Your task to perform on an android device: Add razer blade to the cart on walmart.com Image 0: 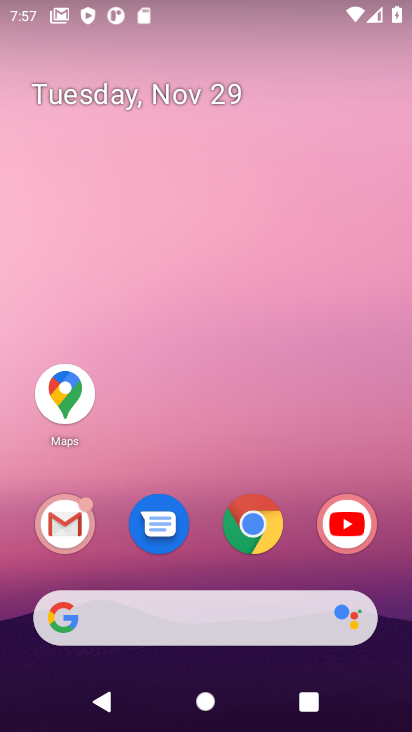
Step 0: click (251, 526)
Your task to perform on an android device: Add razer blade to the cart on walmart.com Image 1: 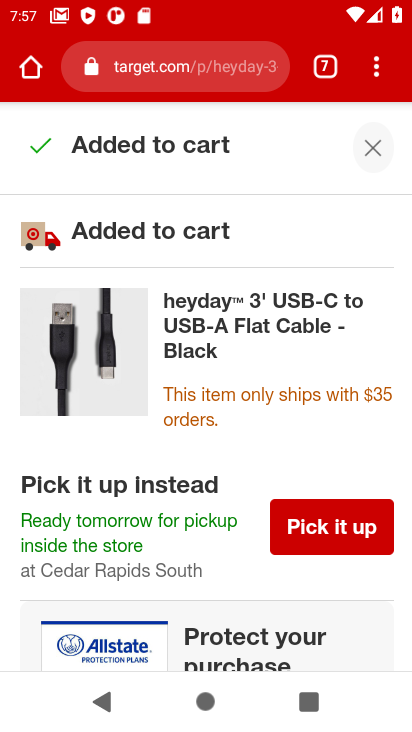
Step 1: click (167, 69)
Your task to perform on an android device: Add razer blade to the cart on walmart.com Image 2: 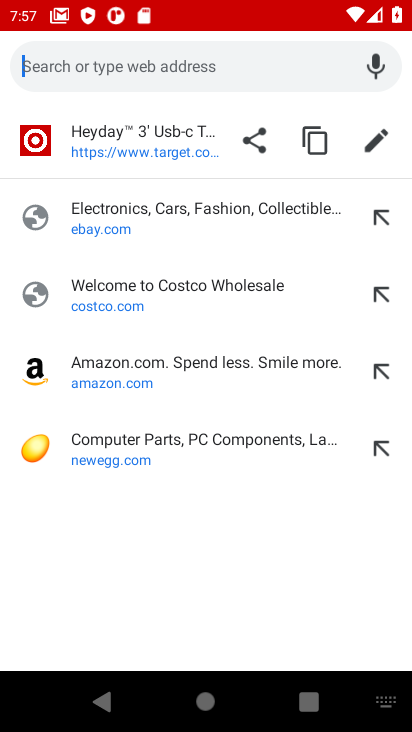
Step 2: type "walmart.com"
Your task to perform on an android device: Add razer blade to the cart on walmart.com Image 3: 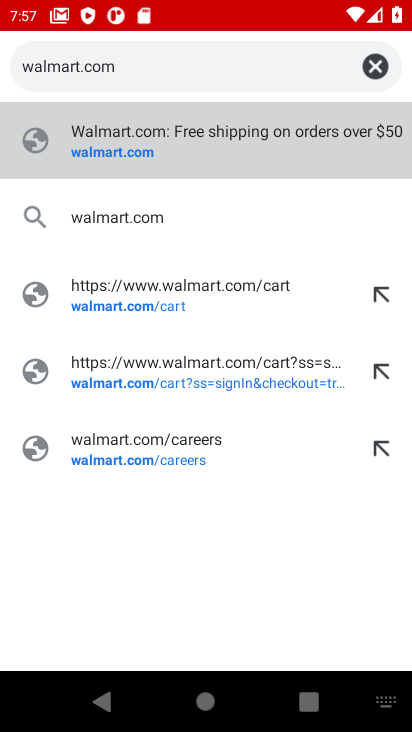
Step 3: click (126, 156)
Your task to perform on an android device: Add razer blade to the cart on walmart.com Image 4: 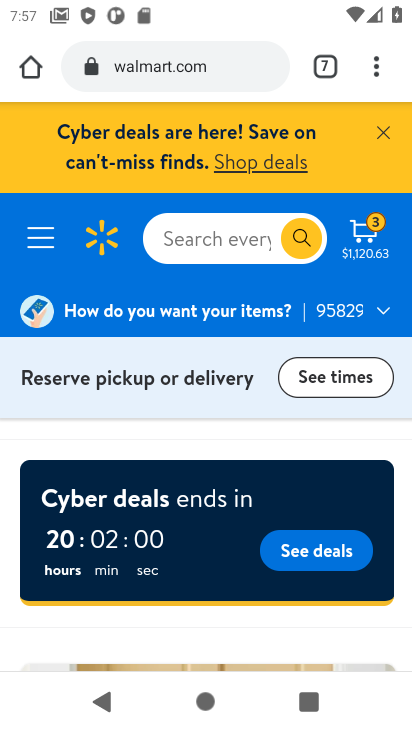
Step 4: click (183, 243)
Your task to perform on an android device: Add razer blade to the cart on walmart.com Image 5: 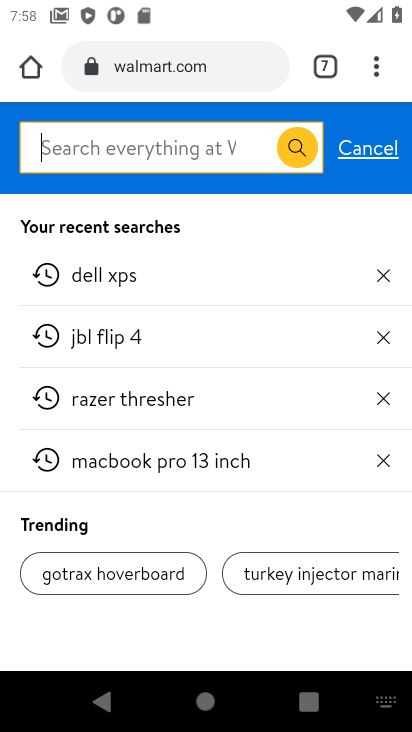
Step 5: type "razer blade"
Your task to perform on an android device: Add razer blade to the cart on walmart.com Image 6: 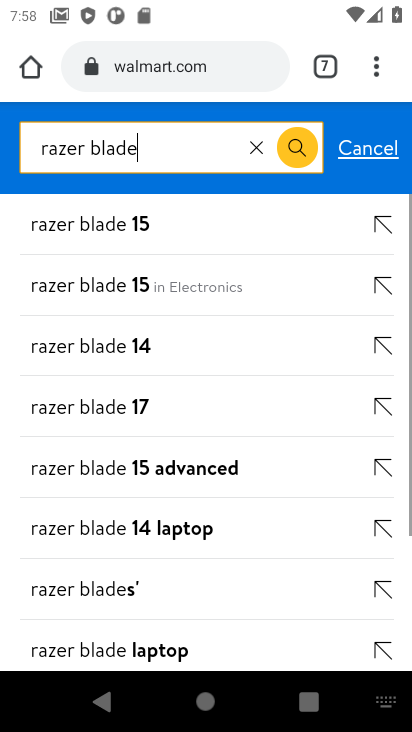
Step 6: click (306, 149)
Your task to perform on an android device: Add razer blade to the cart on walmart.com Image 7: 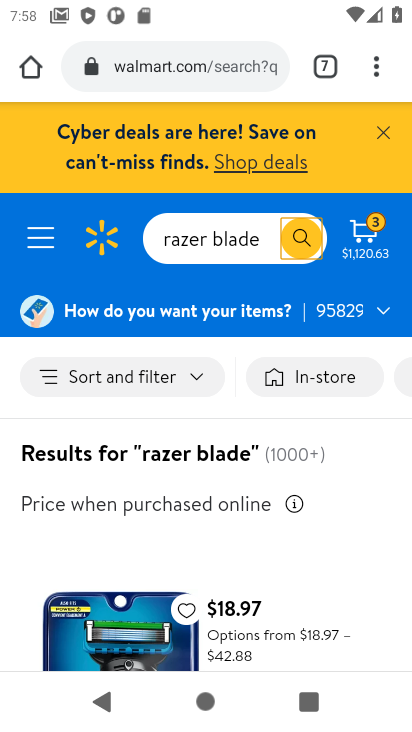
Step 7: task complete